Your task to perform on an android device: turn off sleep mode Image 0: 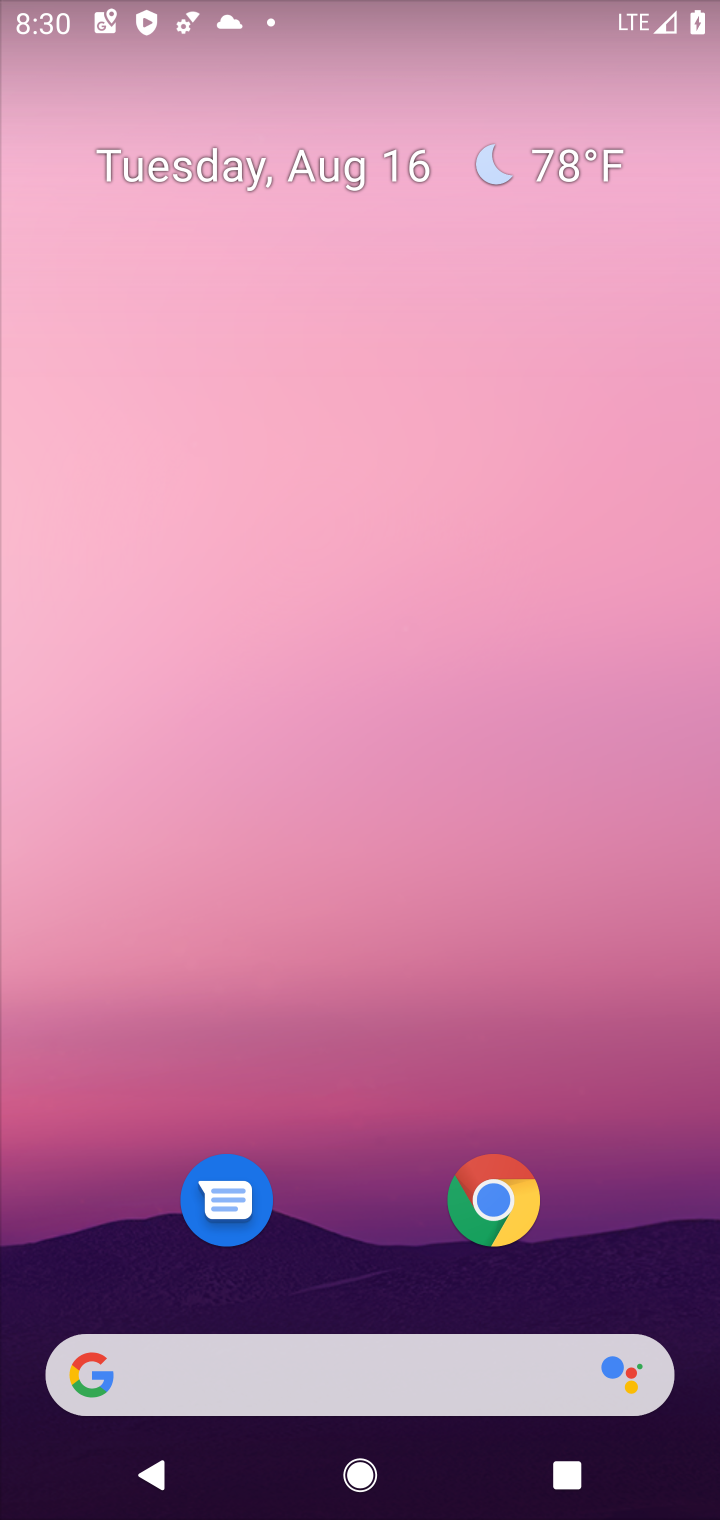
Step 0: drag from (601, 544) to (603, 134)
Your task to perform on an android device: turn off sleep mode Image 1: 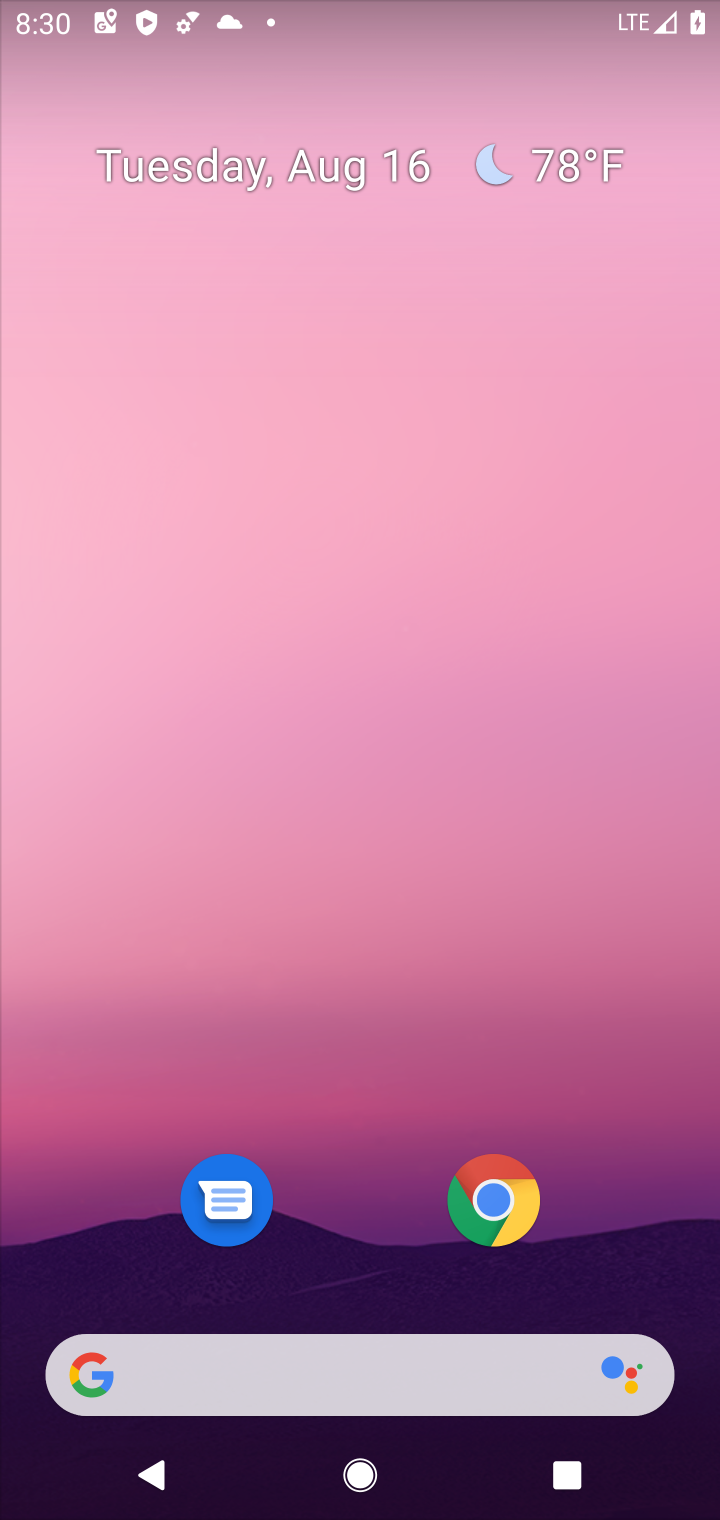
Step 1: drag from (634, 1102) to (583, 202)
Your task to perform on an android device: turn off sleep mode Image 2: 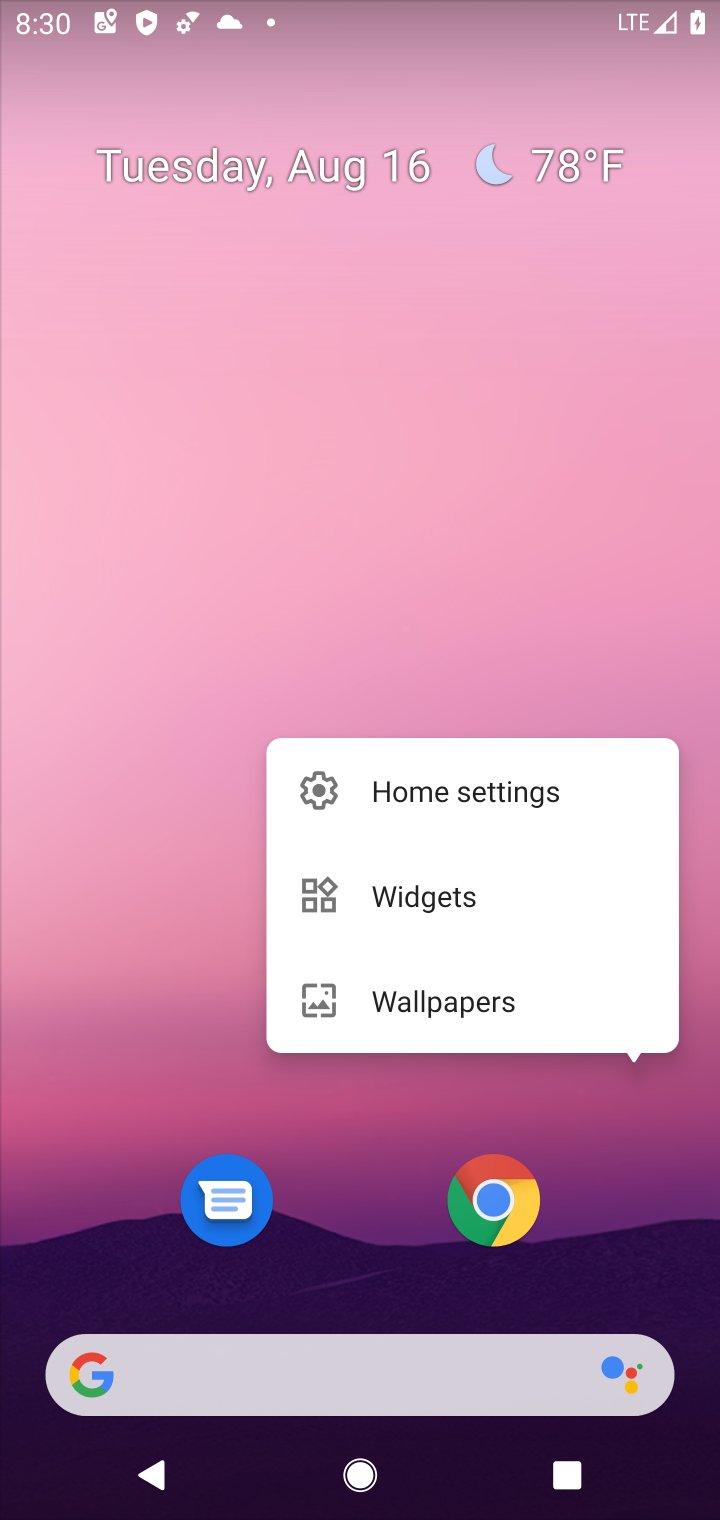
Step 2: click (365, 1259)
Your task to perform on an android device: turn off sleep mode Image 3: 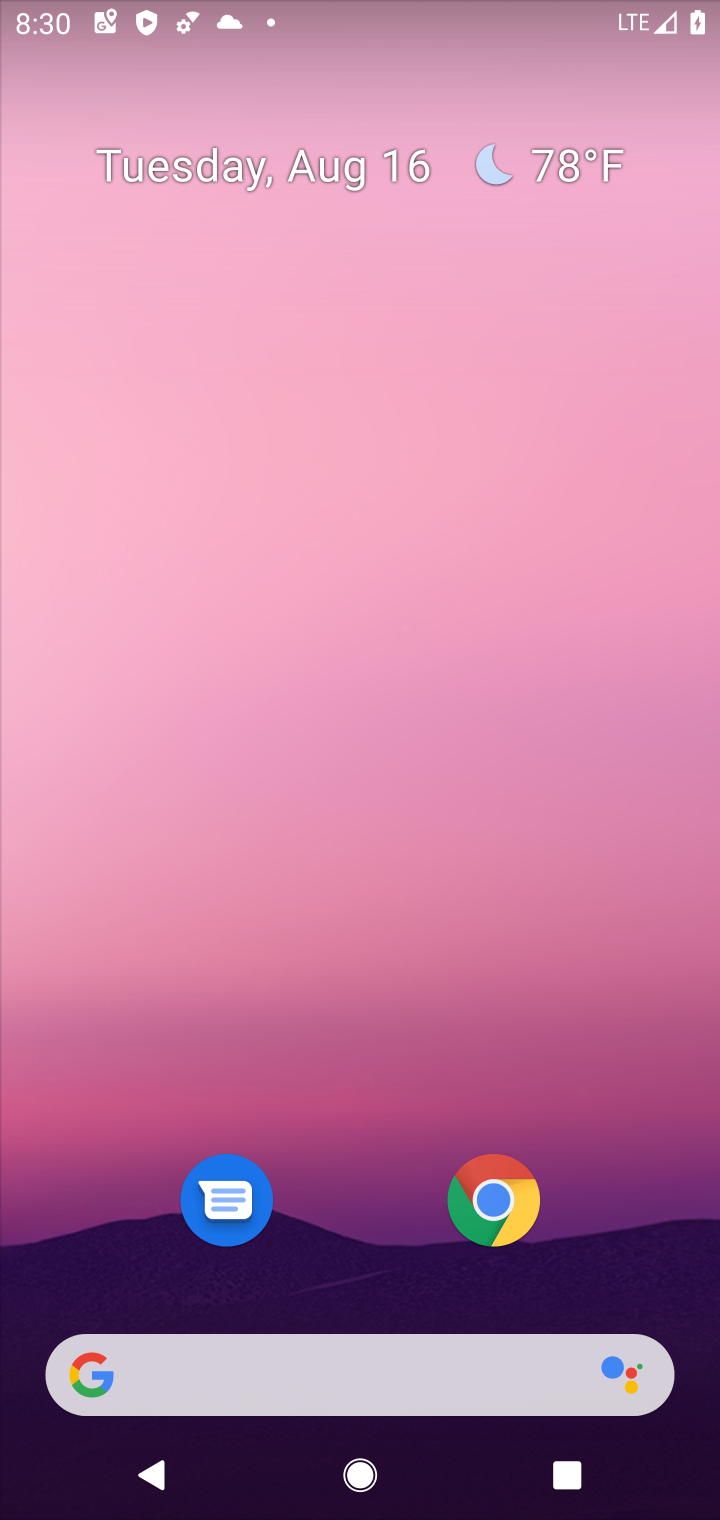
Step 3: drag from (367, 1200) to (466, 191)
Your task to perform on an android device: turn off sleep mode Image 4: 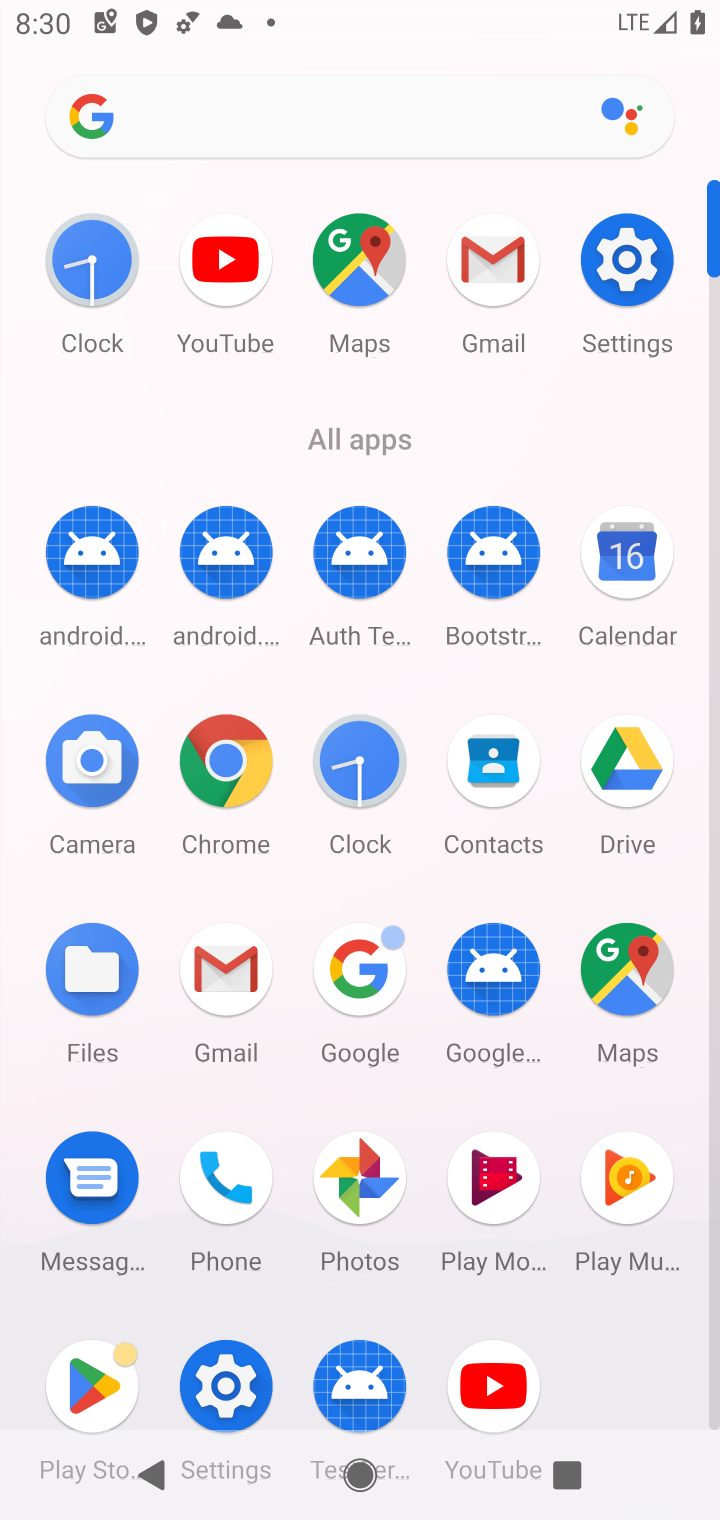
Step 4: click (225, 1385)
Your task to perform on an android device: turn off sleep mode Image 5: 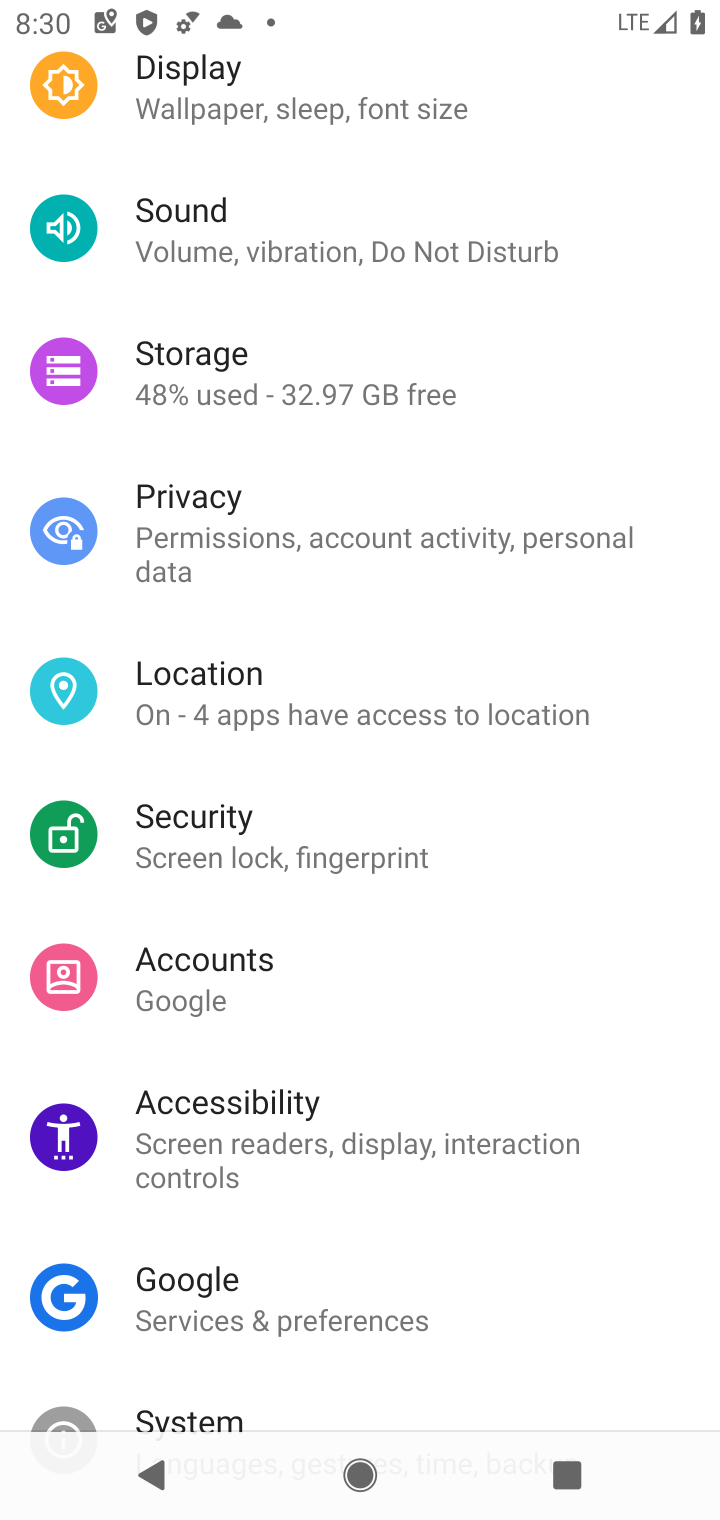
Step 5: drag from (576, 308) to (575, 831)
Your task to perform on an android device: turn off sleep mode Image 6: 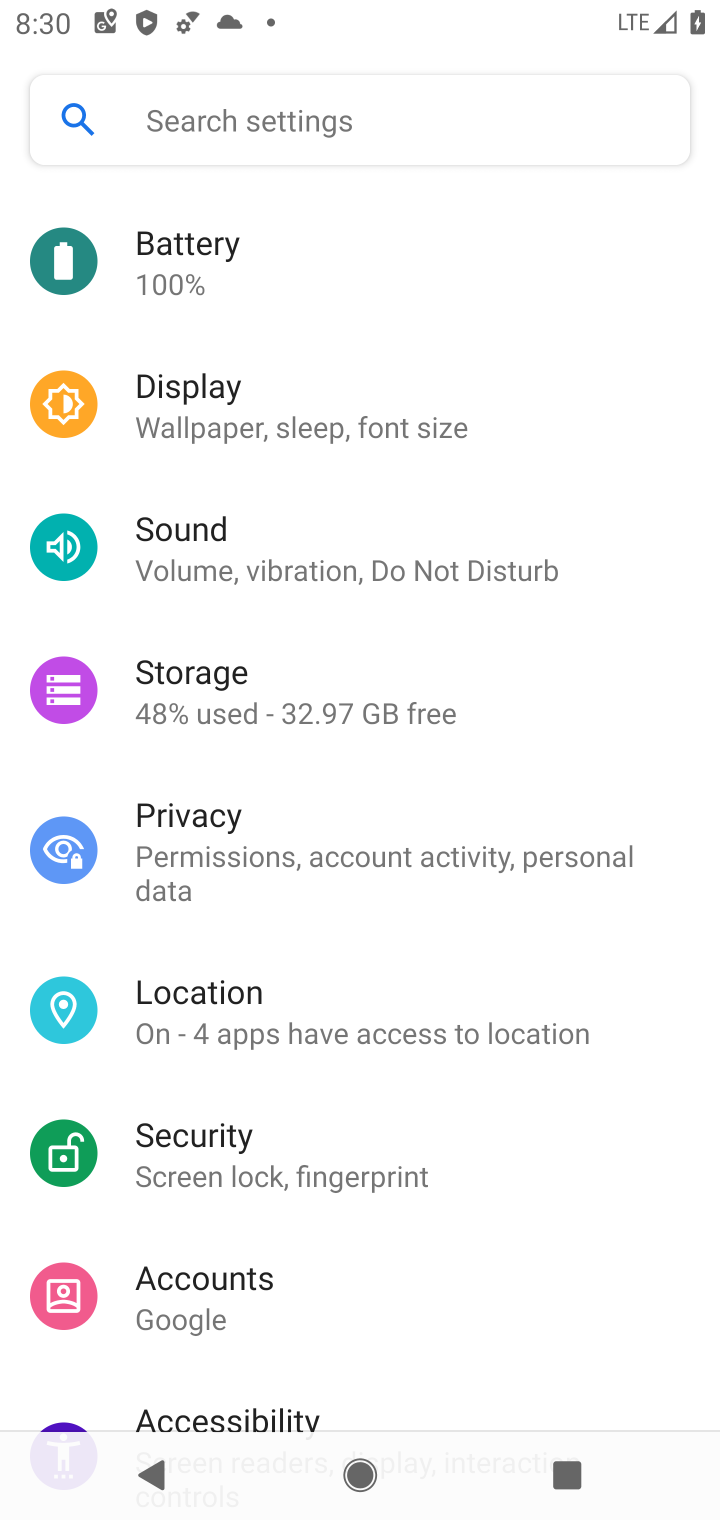
Step 6: click (195, 540)
Your task to perform on an android device: turn off sleep mode Image 7: 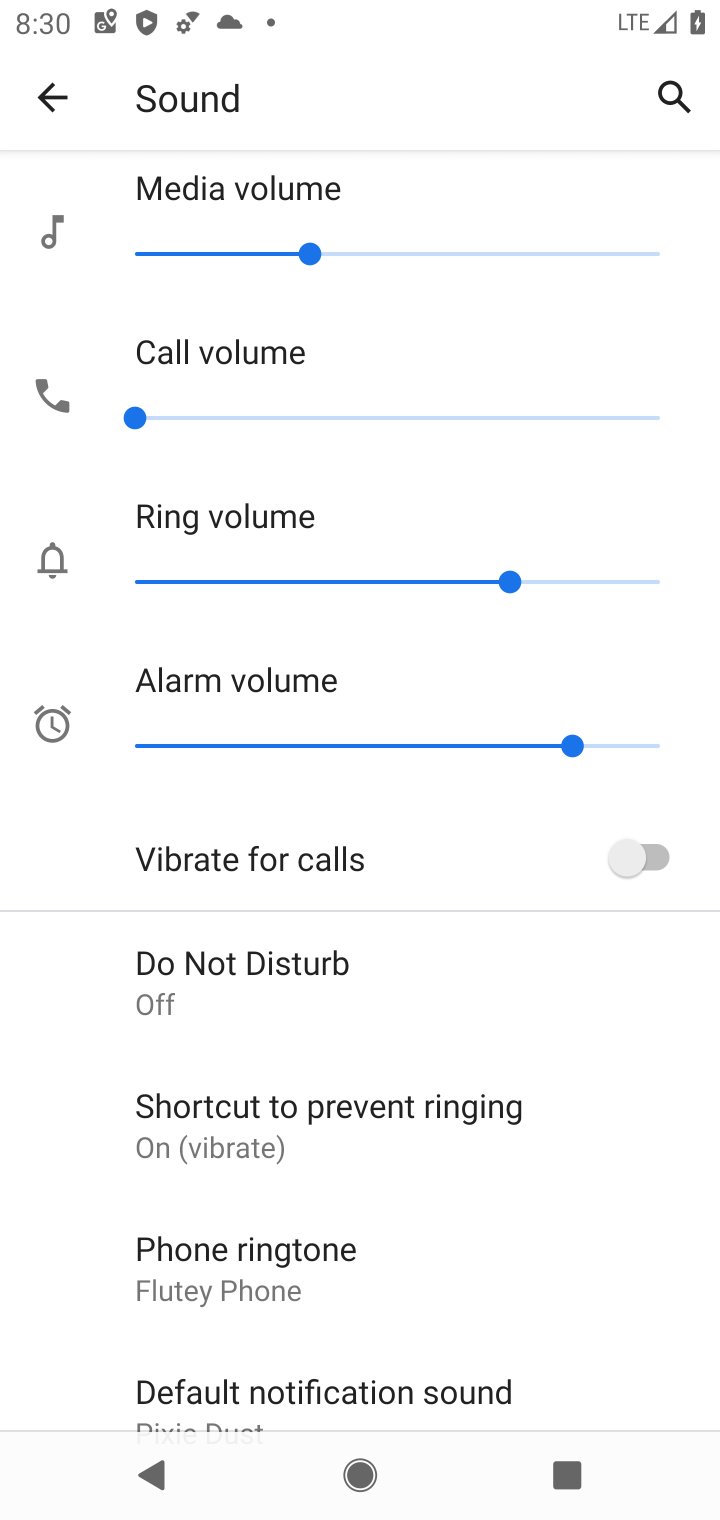
Step 7: drag from (536, 1020) to (535, 627)
Your task to perform on an android device: turn off sleep mode Image 8: 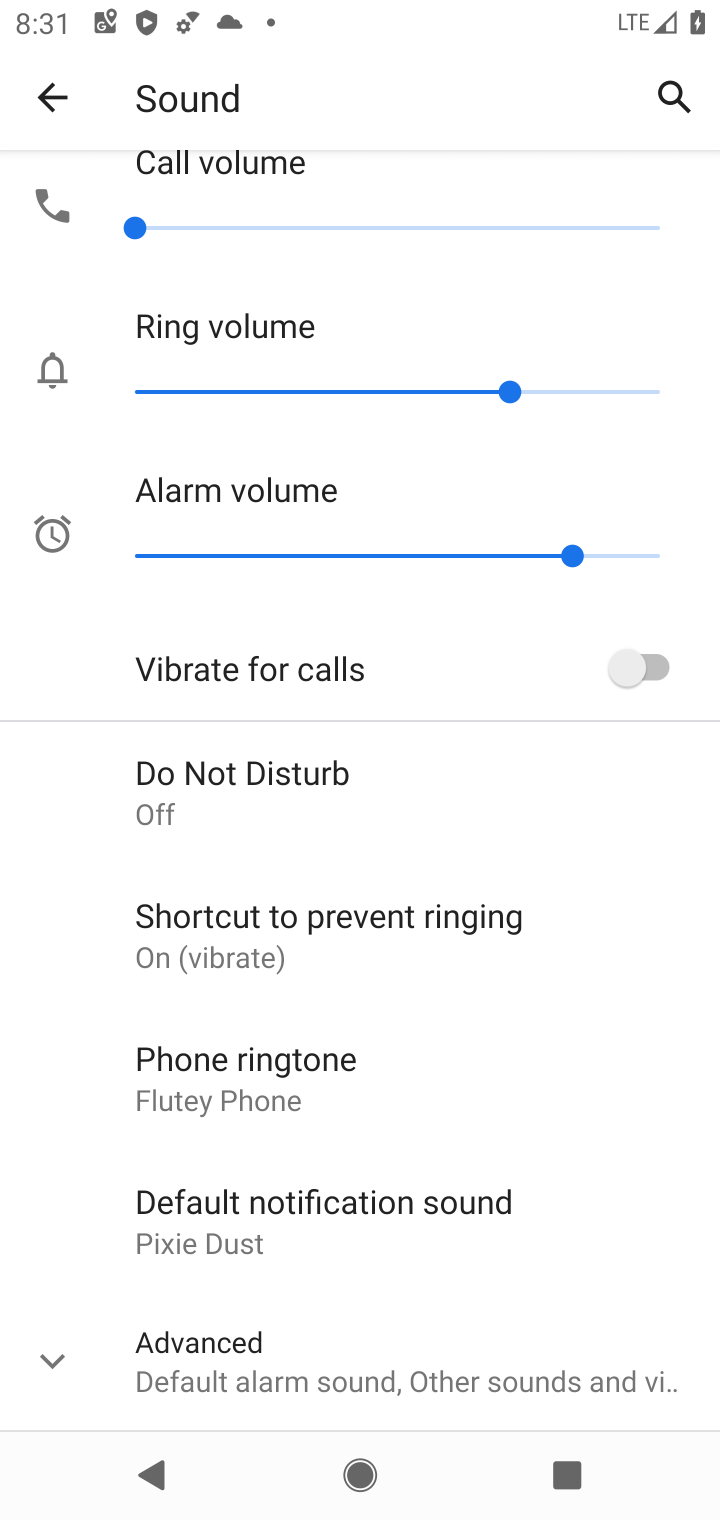
Step 8: click (40, 1358)
Your task to perform on an android device: turn off sleep mode Image 9: 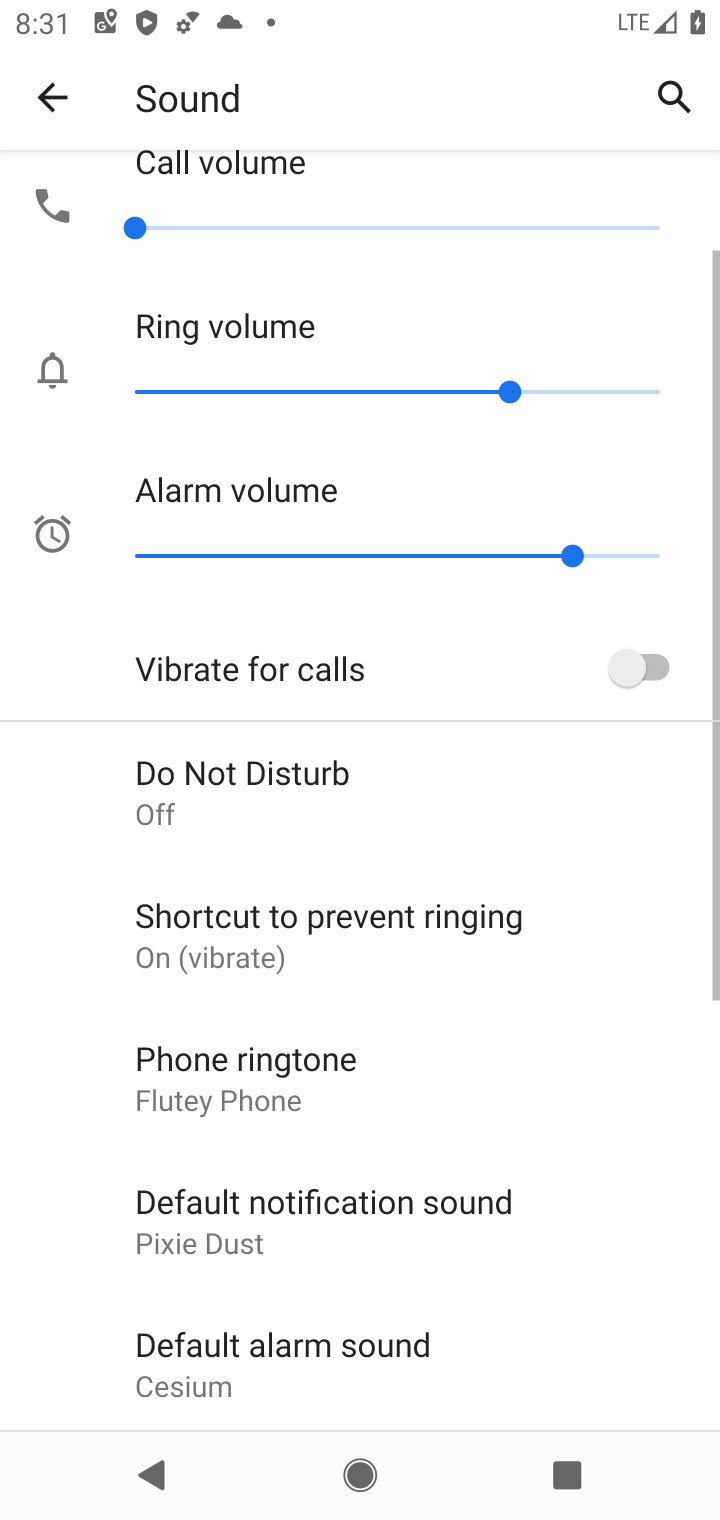
Step 9: task complete